Your task to perform on an android device: Open ESPN.com Image 0: 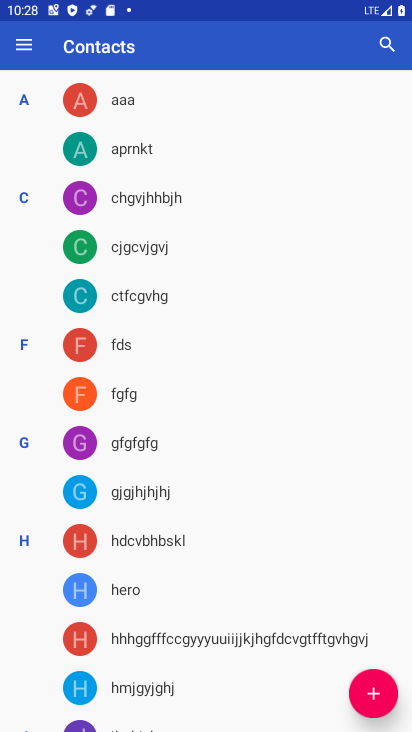
Step 0: press back button
Your task to perform on an android device: Open ESPN.com Image 1: 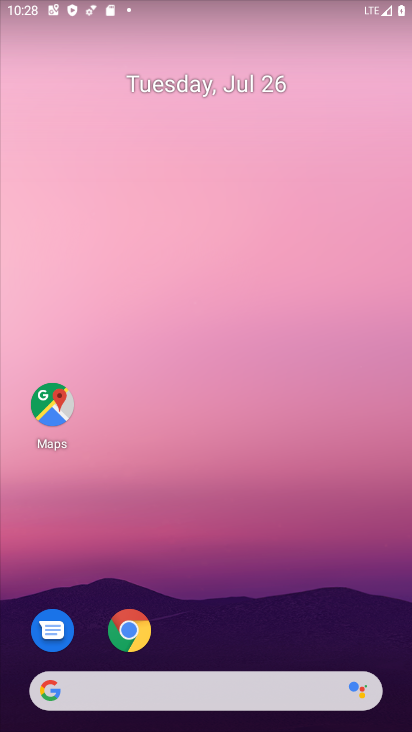
Step 1: click (132, 627)
Your task to perform on an android device: Open ESPN.com Image 2: 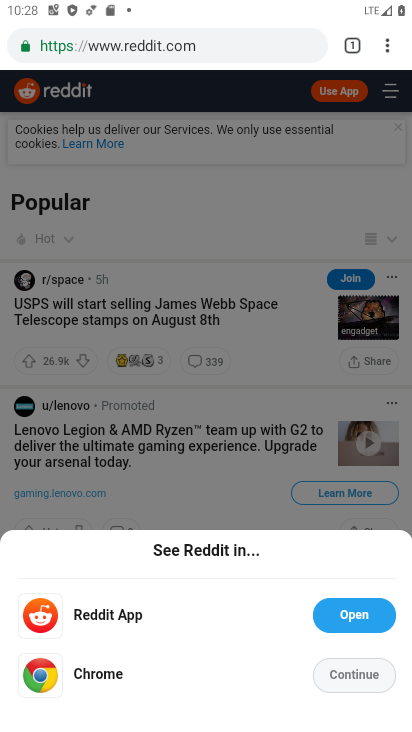
Step 2: click (122, 37)
Your task to perform on an android device: Open ESPN.com Image 3: 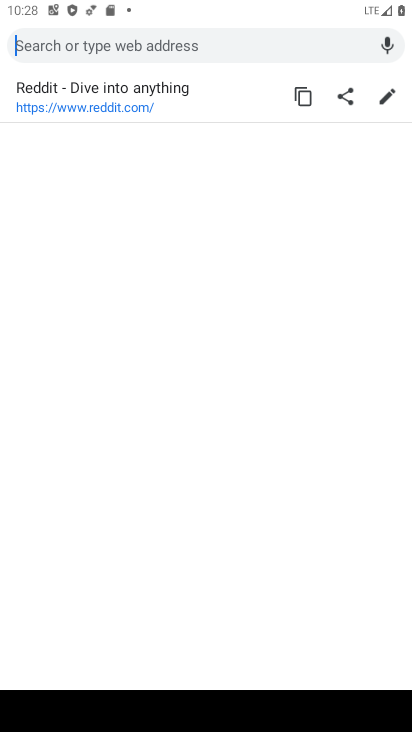
Step 3: type "www.espn.com"
Your task to perform on an android device: Open ESPN.com Image 4: 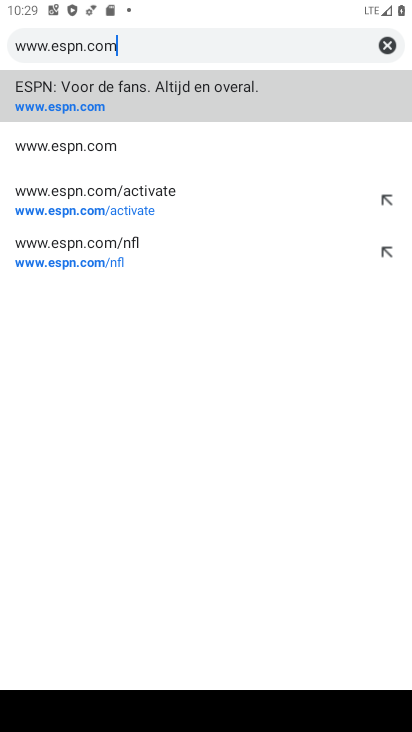
Step 4: click (75, 106)
Your task to perform on an android device: Open ESPN.com Image 5: 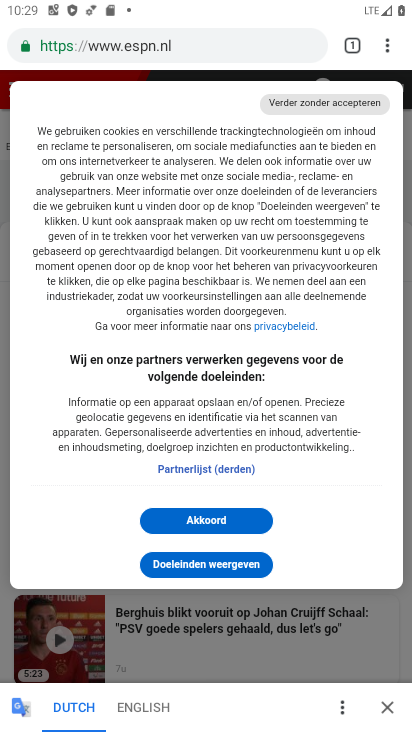
Step 5: task complete